Your task to perform on an android device: Is it going to rain today? Image 0: 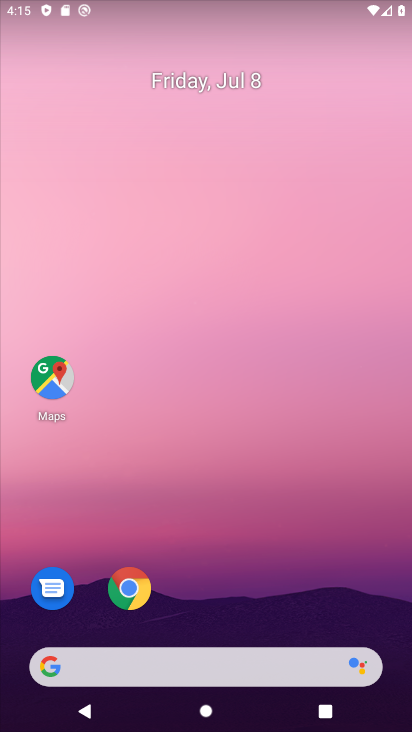
Step 0: click (81, 143)
Your task to perform on an android device: Is it going to rain today? Image 1: 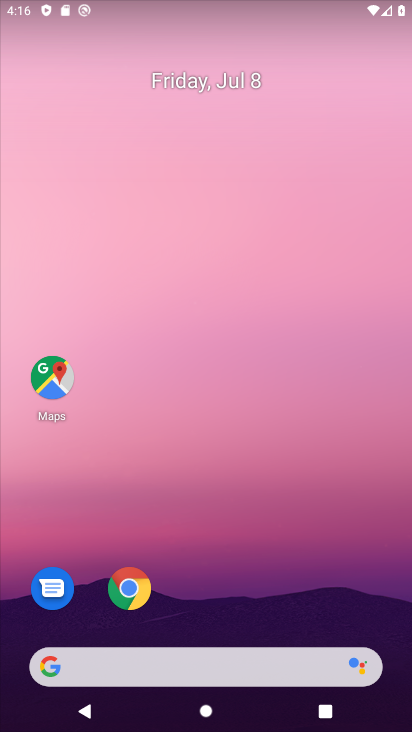
Step 1: drag from (222, 508) to (139, 254)
Your task to perform on an android device: Is it going to rain today? Image 2: 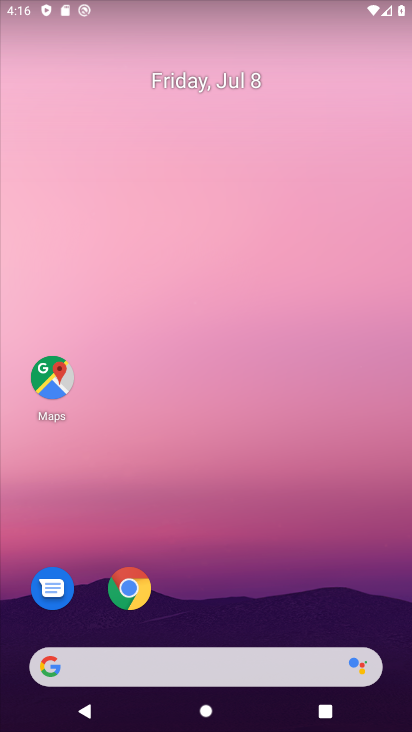
Step 2: drag from (29, 160) to (372, 507)
Your task to perform on an android device: Is it going to rain today? Image 3: 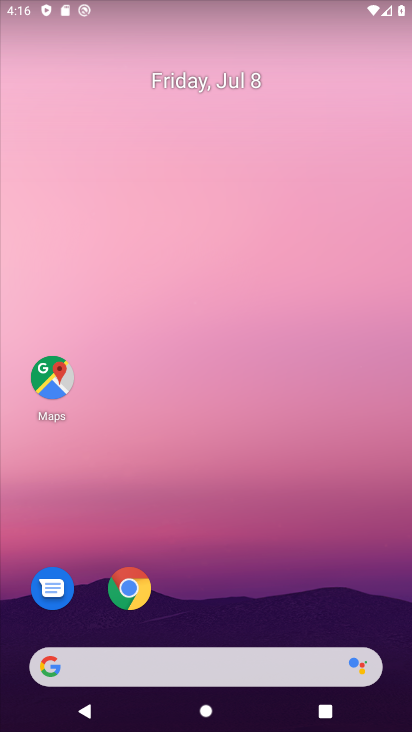
Step 3: drag from (156, 331) to (396, 584)
Your task to perform on an android device: Is it going to rain today? Image 4: 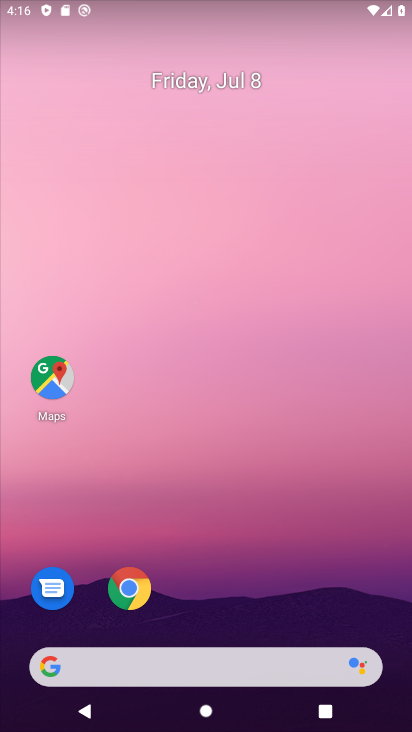
Step 4: drag from (49, 109) to (397, 609)
Your task to perform on an android device: Is it going to rain today? Image 5: 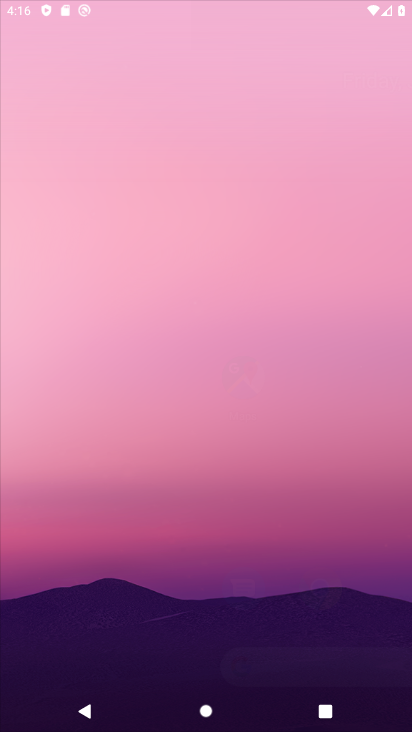
Step 5: drag from (165, 281) to (393, 528)
Your task to perform on an android device: Is it going to rain today? Image 6: 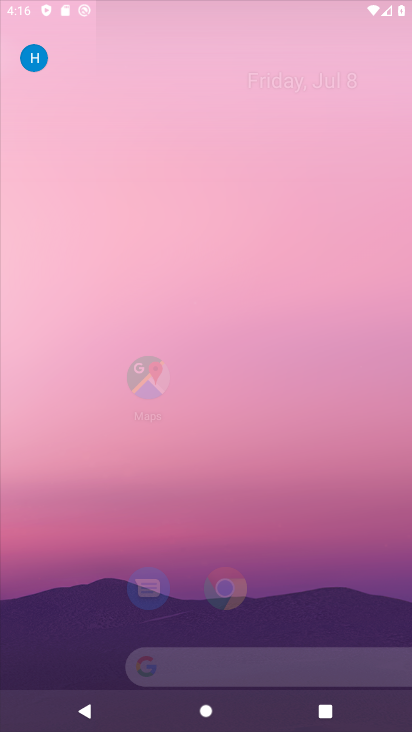
Step 6: drag from (77, 125) to (399, 706)
Your task to perform on an android device: Is it going to rain today? Image 7: 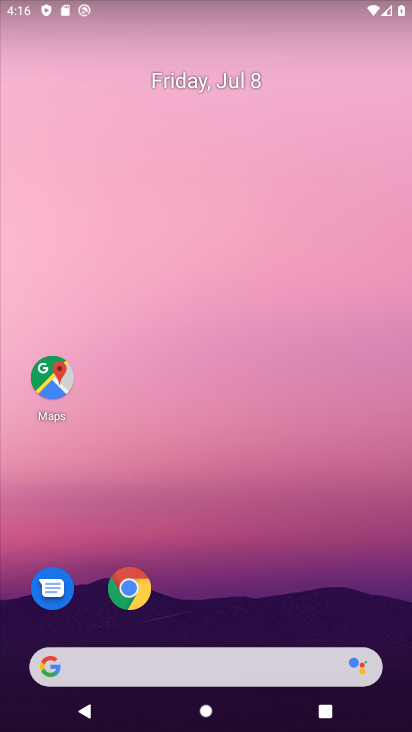
Step 7: drag from (62, 155) to (343, 588)
Your task to perform on an android device: Is it going to rain today? Image 8: 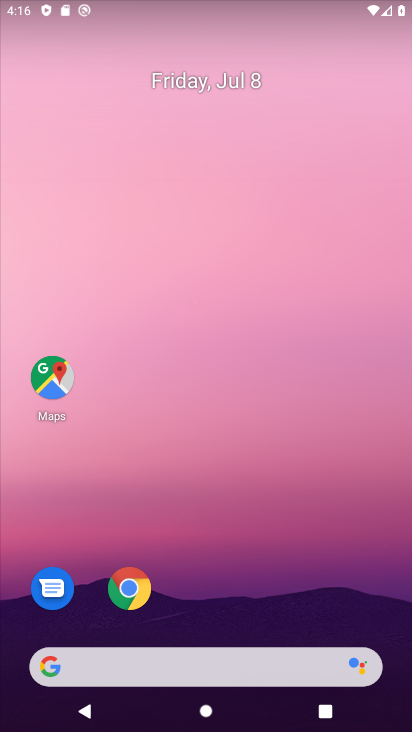
Step 8: drag from (7, 240) to (409, 254)
Your task to perform on an android device: Is it going to rain today? Image 9: 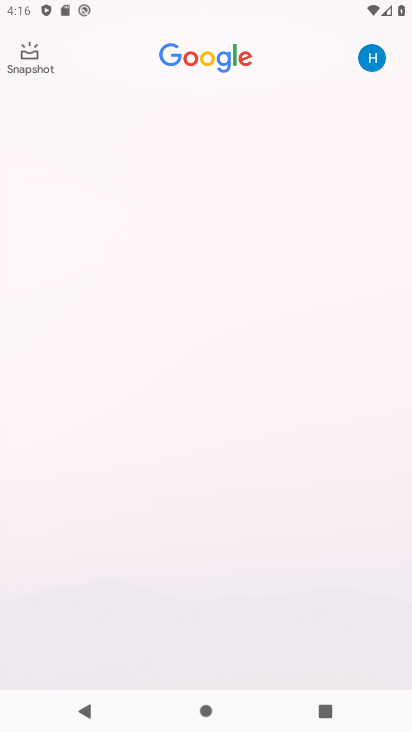
Step 9: drag from (87, 226) to (398, 225)
Your task to perform on an android device: Is it going to rain today? Image 10: 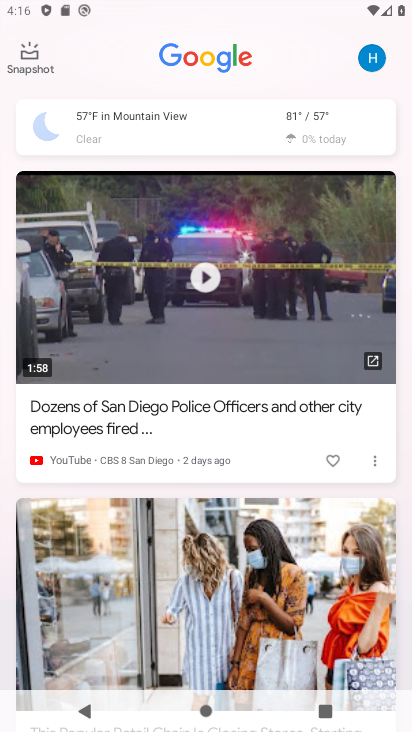
Step 10: click (150, 116)
Your task to perform on an android device: Is it going to rain today? Image 11: 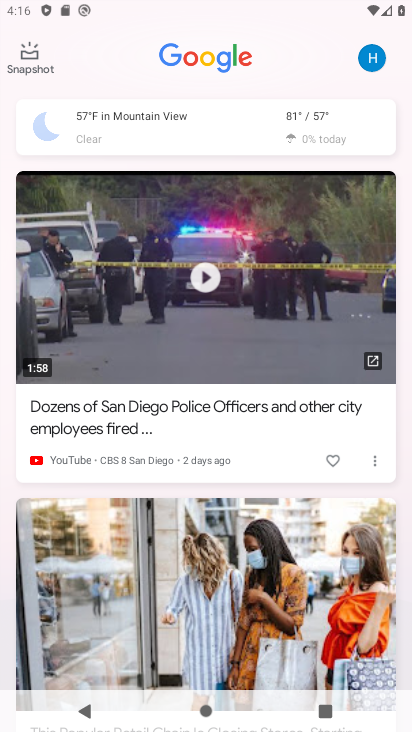
Step 11: click (138, 114)
Your task to perform on an android device: Is it going to rain today? Image 12: 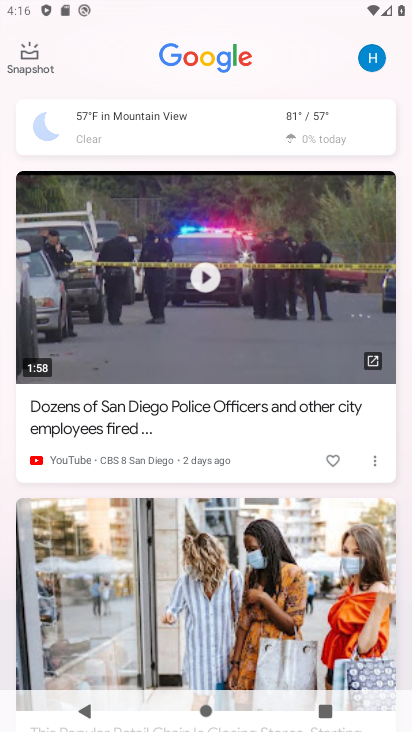
Step 12: click (138, 114)
Your task to perform on an android device: Is it going to rain today? Image 13: 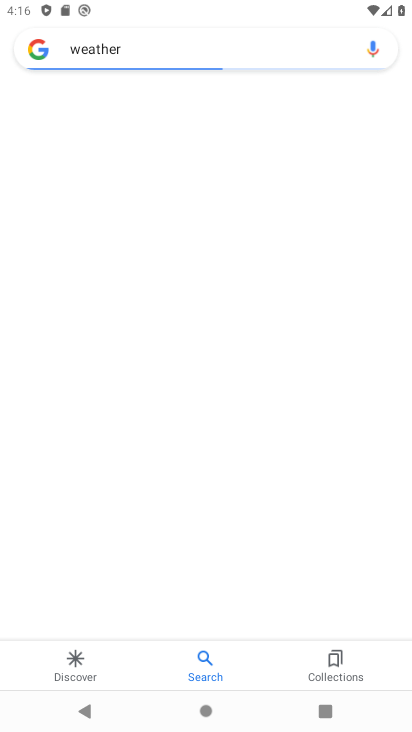
Step 13: click (147, 114)
Your task to perform on an android device: Is it going to rain today? Image 14: 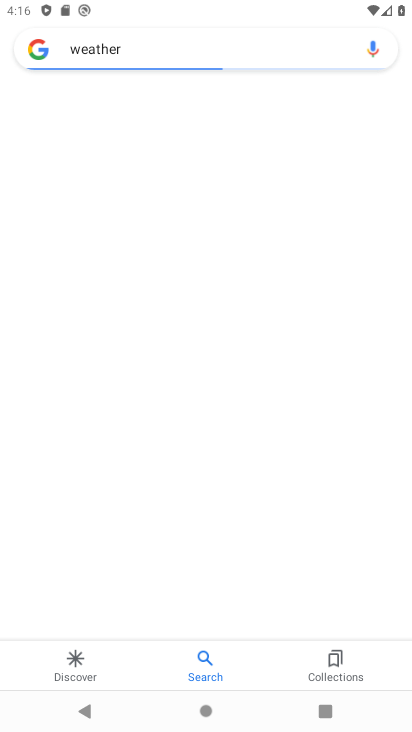
Step 14: click (126, 50)
Your task to perform on an android device: Is it going to rain today? Image 15: 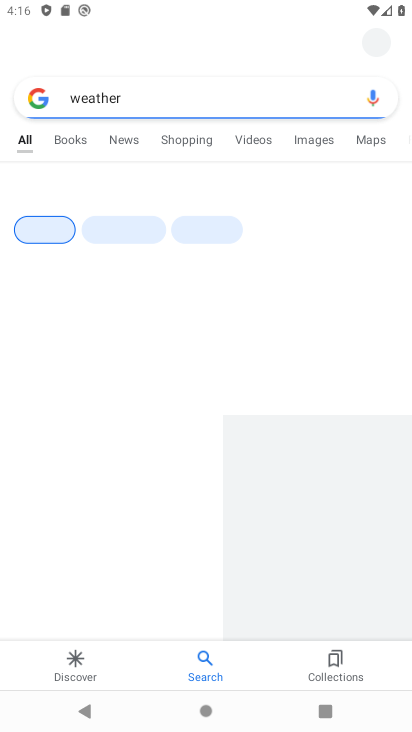
Step 15: click (126, 50)
Your task to perform on an android device: Is it going to rain today? Image 16: 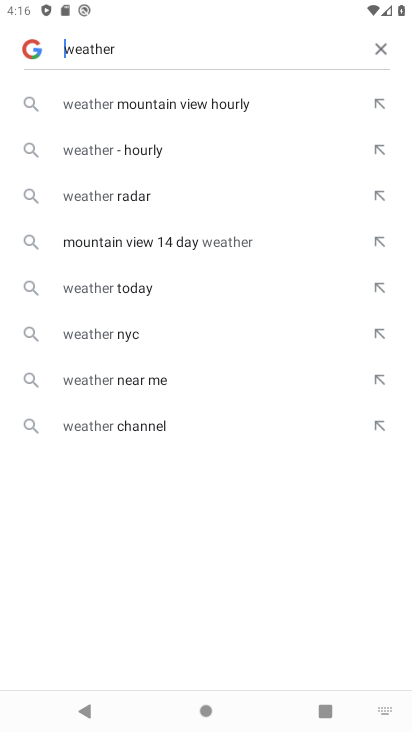
Step 16: task complete